Your task to perform on an android device: turn on javascript in the chrome app Image 0: 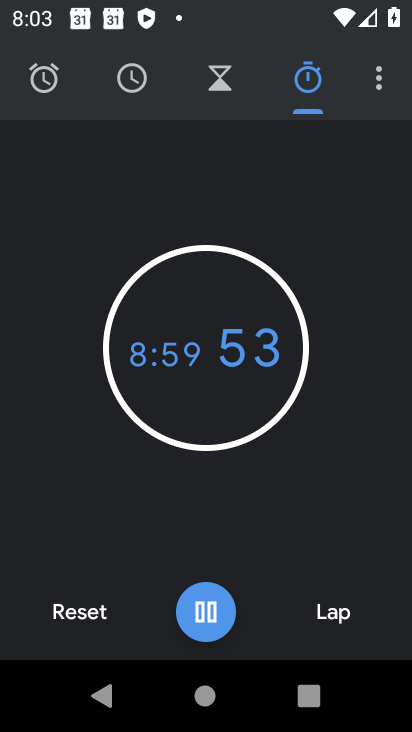
Step 0: press home button
Your task to perform on an android device: turn on javascript in the chrome app Image 1: 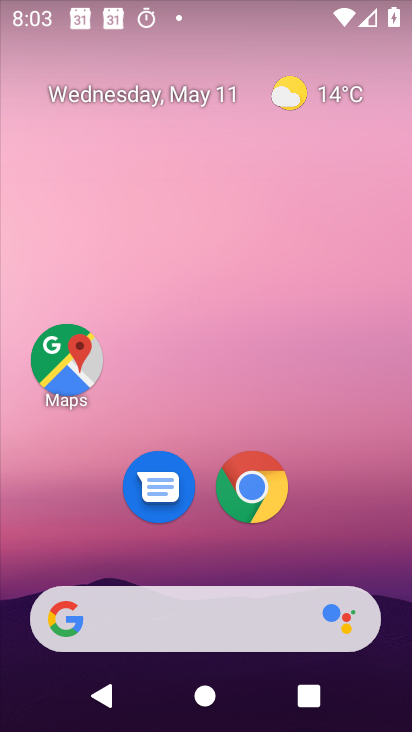
Step 1: click (252, 492)
Your task to perform on an android device: turn on javascript in the chrome app Image 2: 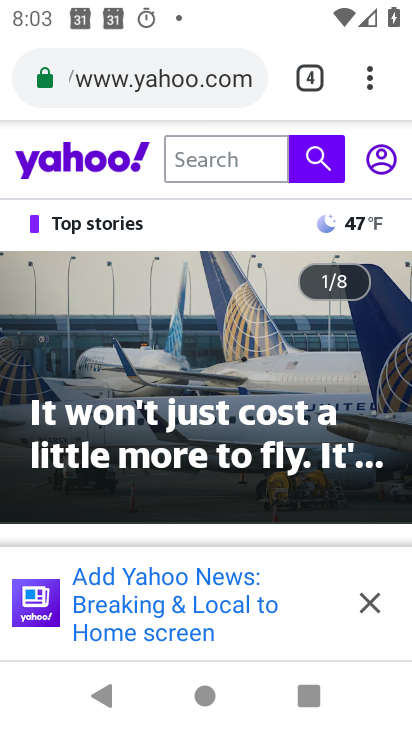
Step 2: click (370, 85)
Your task to perform on an android device: turn on javascript in the chrome app Image 3: 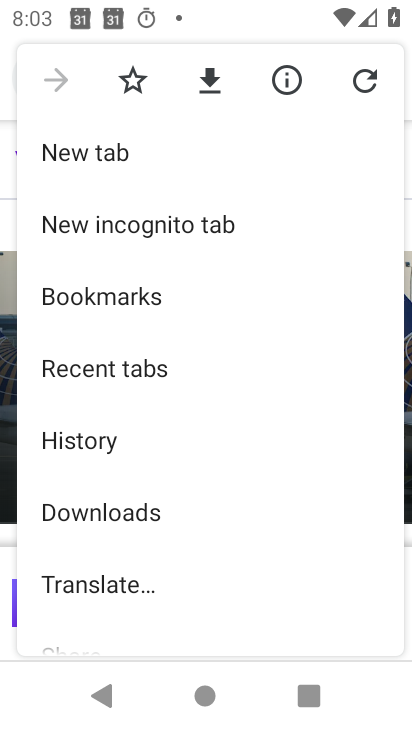
Step 3: drag from (189, 613) to (209, 154)
Your task to perform on an android device: turn on javascript in the chrome app Image 4: 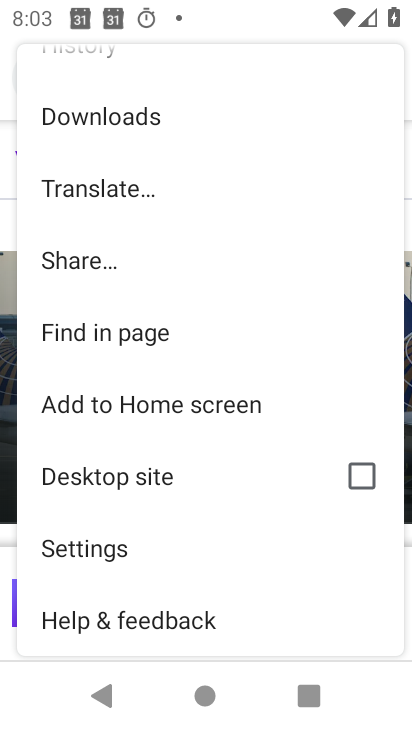
Step 4: click (104, 549)
Your task to perform on an android device: turn on javascript in the chrome app Image 5: 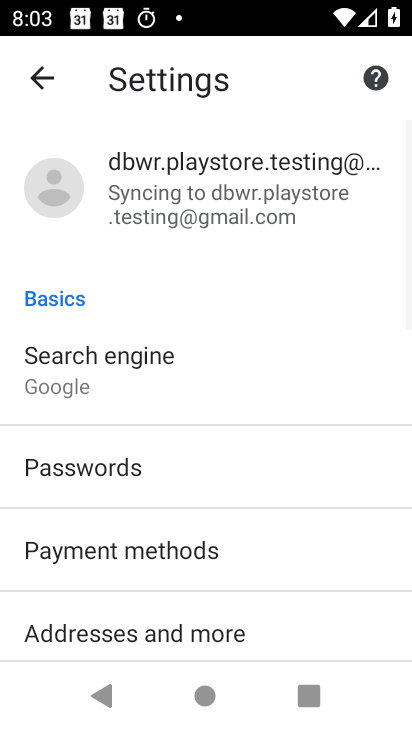
Step 5: drag from (165, 573) to (220, 206)
Your task to perform on an android device: turn on javascript in the chrome app Image 6: 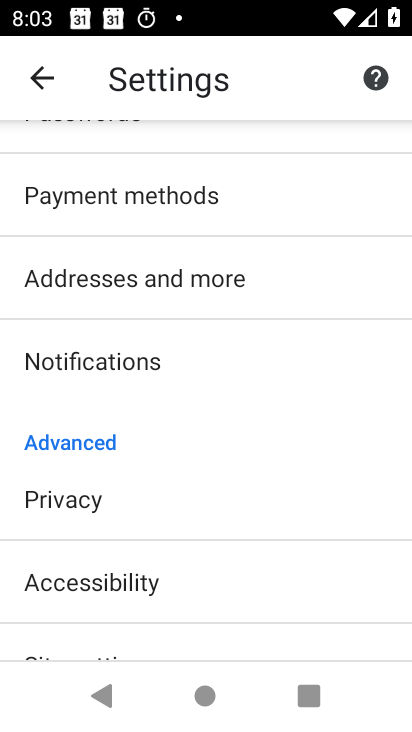
Step 6: drag from (172, 645) to (247, 340)
Your task to perform on an android device: turn on javascript in the chrome app Image 7: 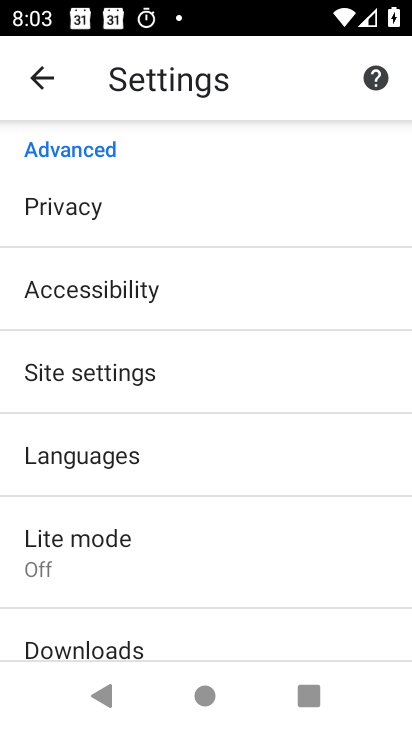
Step 7: click (108, 370)
Your task to perform on an android device: turn on javascript in the chrome app Image 8: 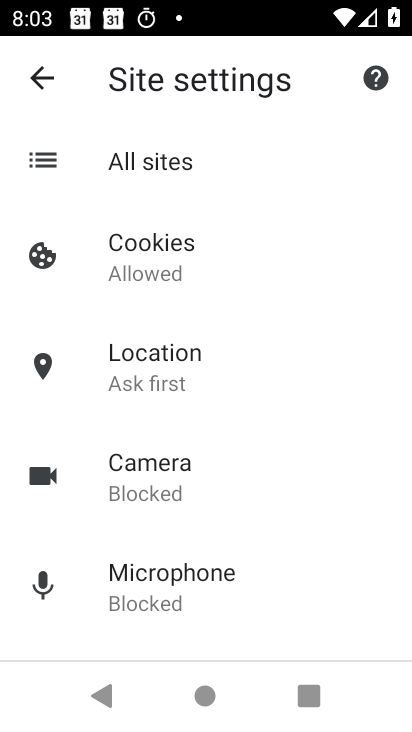
Step 8: drag from (142, 628) to (175, 354)
Your task to perform on an android device: turn on javascript in the chrome app Image 9: 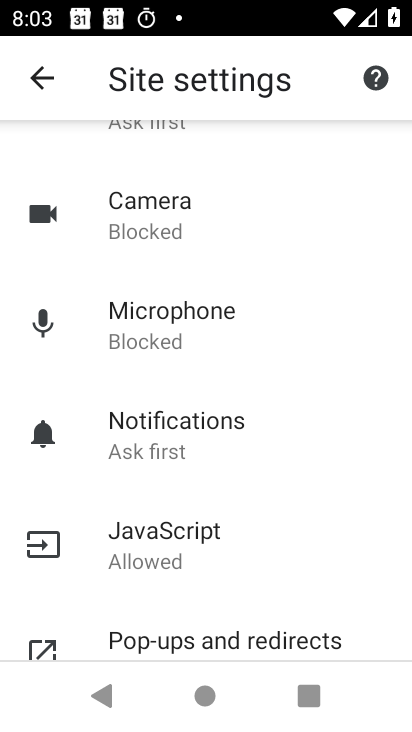
Step 9: click (172, 544)
Your task to perform on an android device: turn on javascript in the chrome app Image 10: 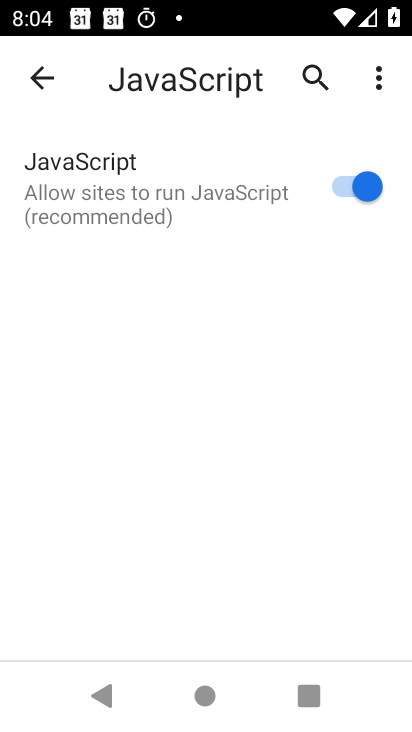
Step 10: task complete